Your task to perform on an android device: delete a single message in the gmail app Image 0: 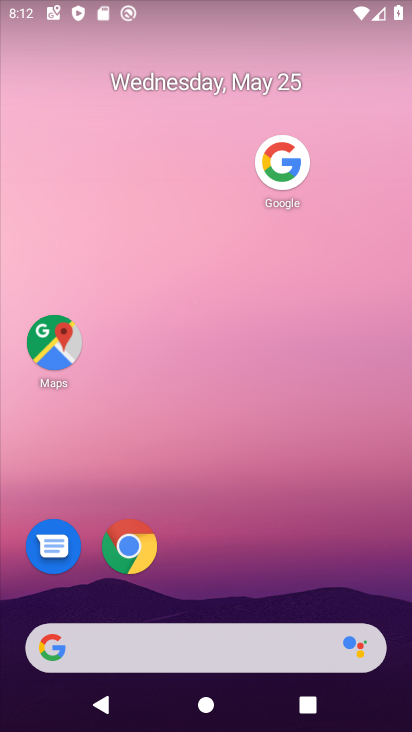
Step 0: drag from (261, 640) to (409, 323)
Your task to perform on an android device: delete a single message in the gmail app Image 1: 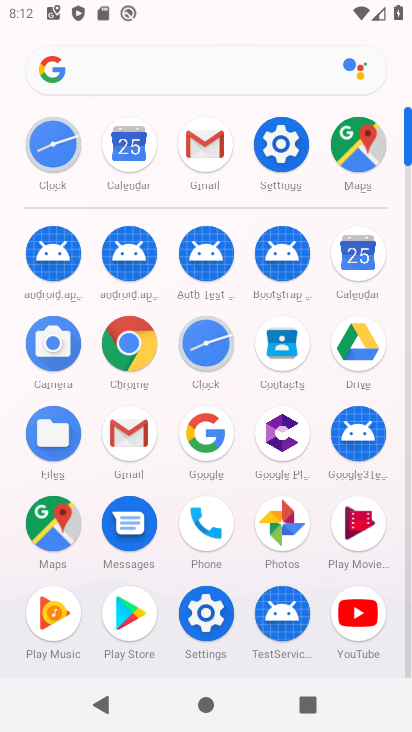
Step 1: click (199, 164)
Your task to perform on an android device: delete a single message in the gmail app Image 2: 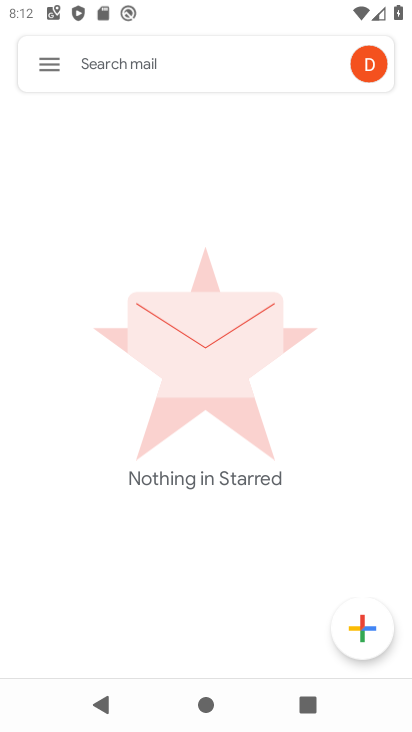
Step 2: click (50, 67)
Your task to perform on an android device: delete a single message in the gmail app Image 3: 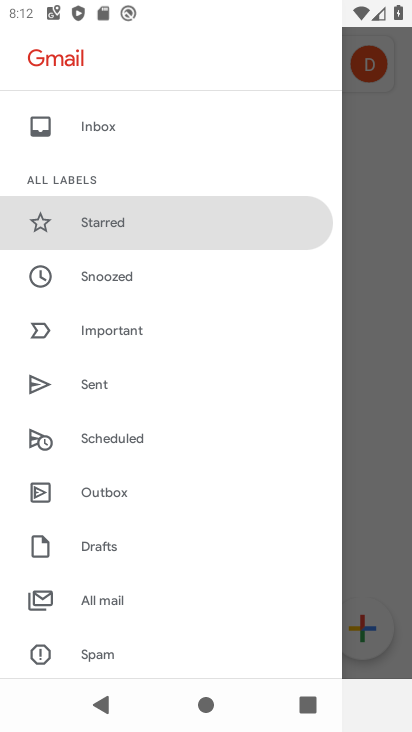
Step 3: click (102, 604)
Your task to perform on an android device: delete a single message in the gmail app Image 4: 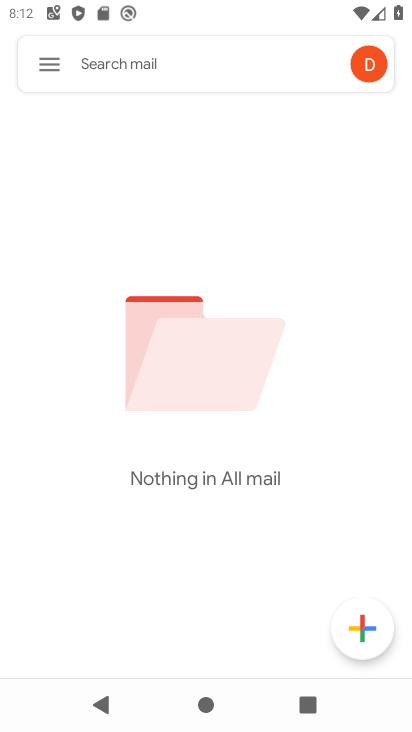
Step 4: task complete